Your task to perform on an android device: make emails show in primary in the gmail app Image 0: 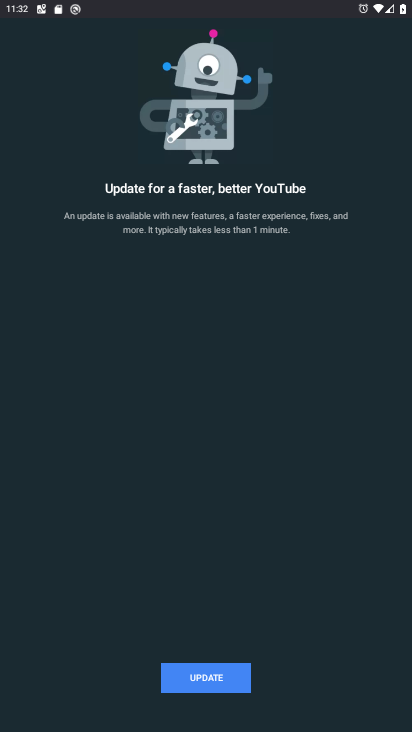
Step 0: press home button
Your task to perform on an android device: make emails show in primary in the gmail app Image 1: 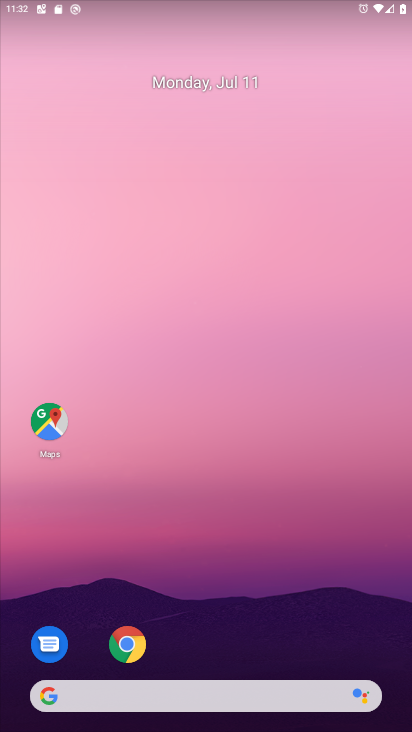
Step 1: drag from (271, 598) to (271, 156)
Your task to perform on an android device: make emails show in primary in the gmail app Image 2: 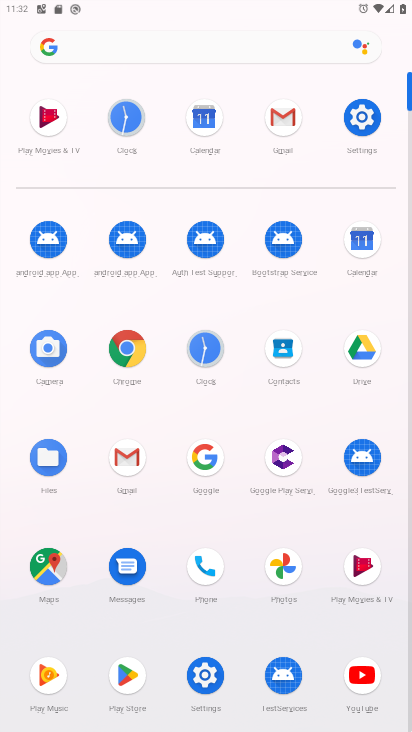
Step 2: click (283, 126)
Your task to perform on an android device: make emails show in primary in the gmail app Image 3: 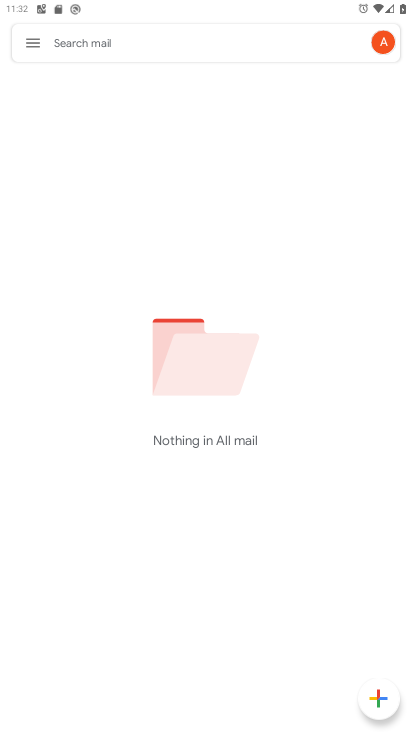
Step 3: click (26, 39)
Your task to perform on an android device: make emails show in primary in the gmail app Image 4: 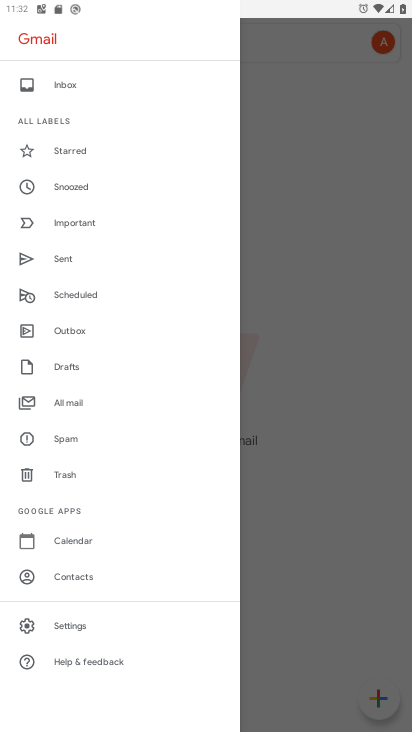
Step 4: click (87, 629)
Your task to perform on an android device: make emails show in primary in the gmail app Image 5: 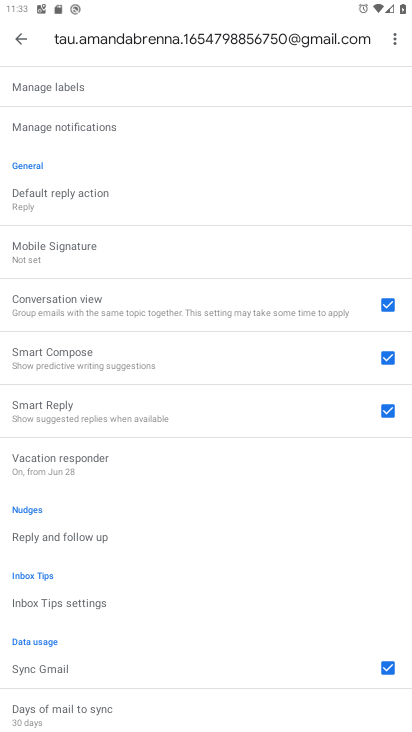
Step 5: drag from (93, 122) to (129, 426)
Your task to perform on an android device: make emails show in primary in the gmail app Image 6: 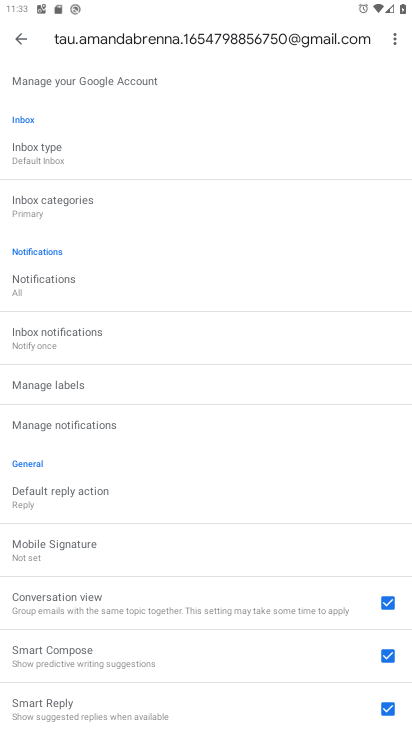
Step 6: drag from (150, 167) to (191, 360)
Your task to perform on an android device: make emails show in primary in the gmail app Image 7: 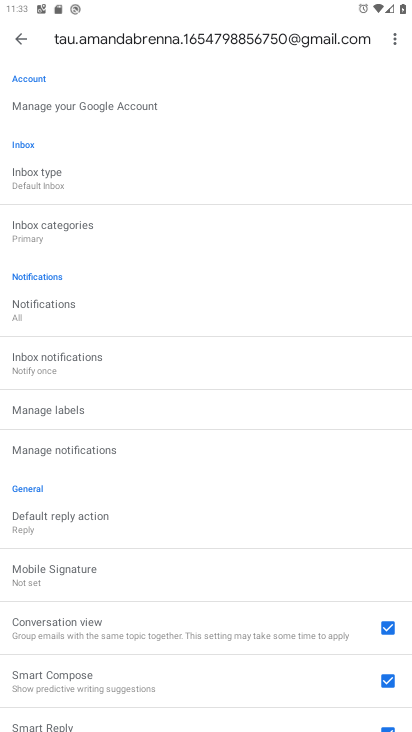
Step 7: click (88, 189)
Your task to perform on an android device: make emails show in primary in the gmail app Image 8: 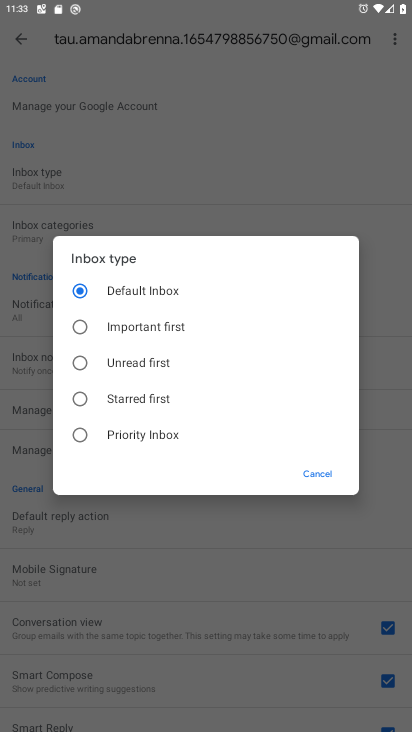
Step 8: click (151, 286)
Your task to perform on an android device: make emails show in primary in the gmail app Image 9: 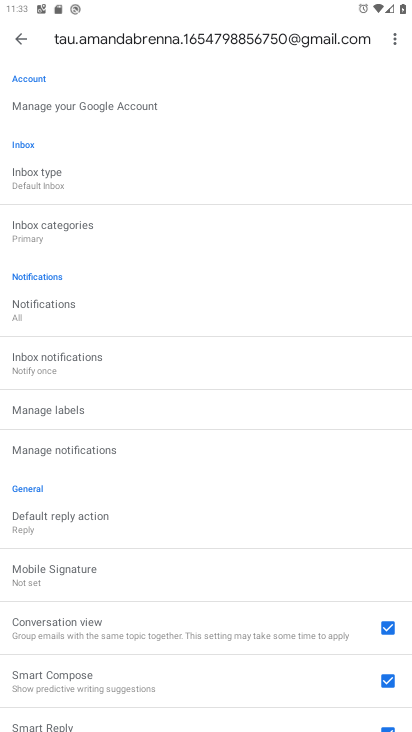
Step 9: task complete